Your task to perform on an android device: toggle javascript in the chrome app Image 0: 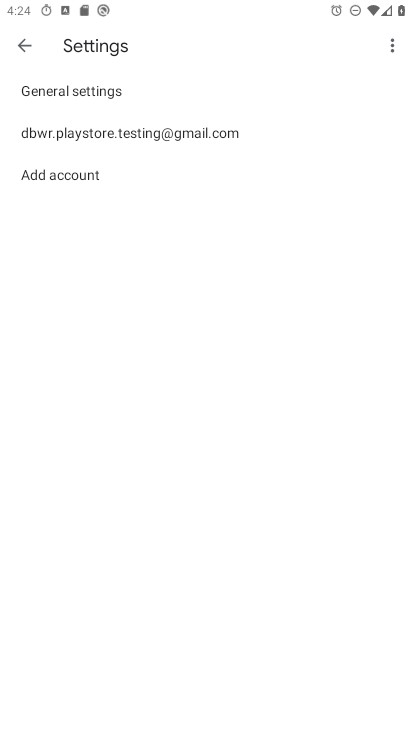
Step 0: press home button
Your task to perform on an android device: toggle javascript in the chrome app Image 1: 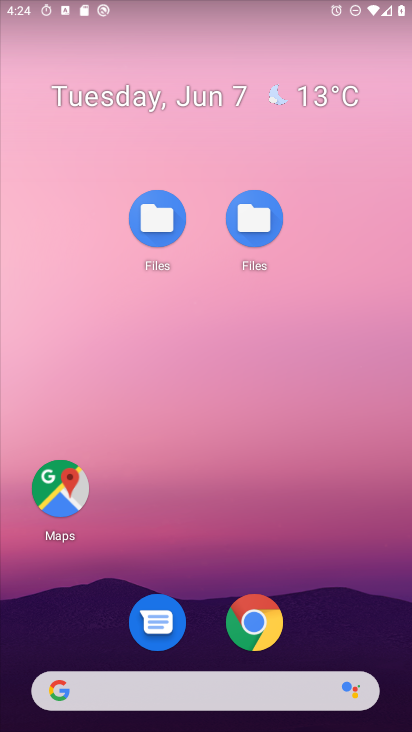
Step 1: click (251, 628)
Your task to perform on an android device: toggle javascript in the chrome app Image 2: 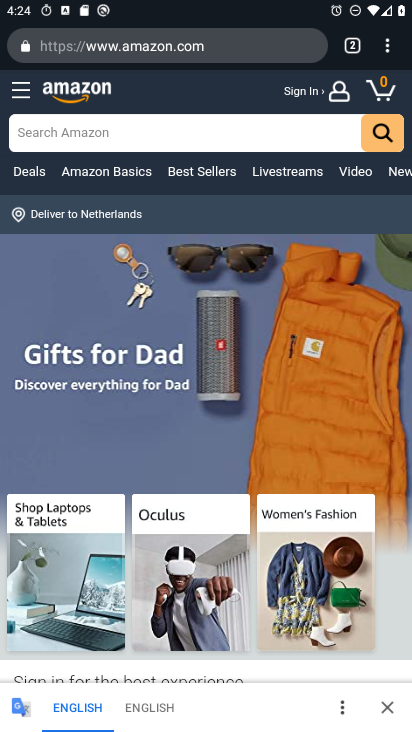
Step 2: click (390, 62)
Your task to perform on an android device: toggle javascript in the chrome app Image 3: 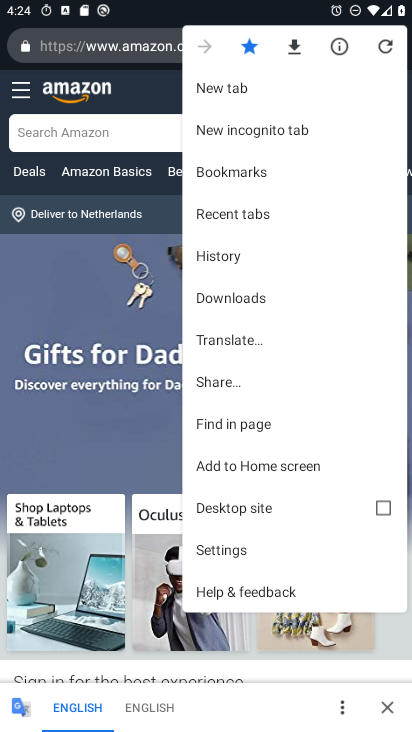
Step 3: click (220, 552)
Your task to perform on an android device: toggle javascript in the chrome app Image 4: 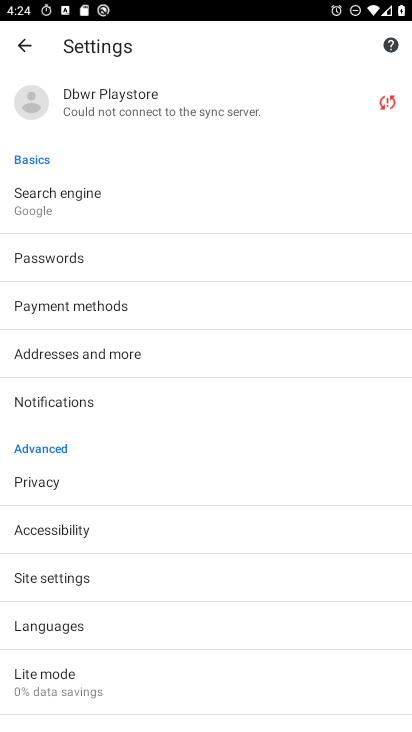
Step 4: click (106, 574)
Your task to perform on an android device: toggle javascript in the chrome app Image 5: 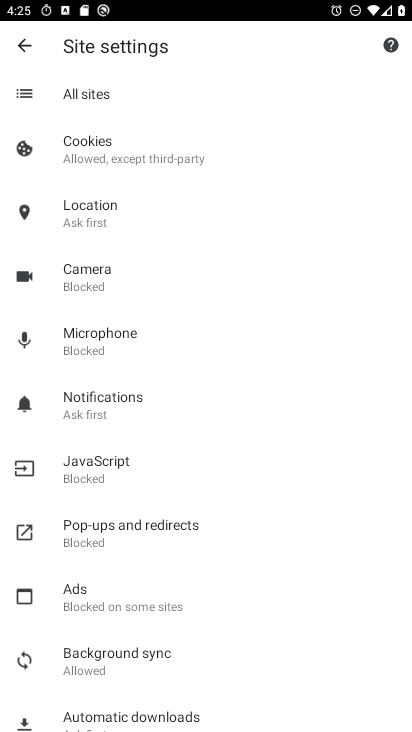
Step 5: click (86, 475)
Your task to perform on an android device: toggle javascript in the chrome app Image 6: 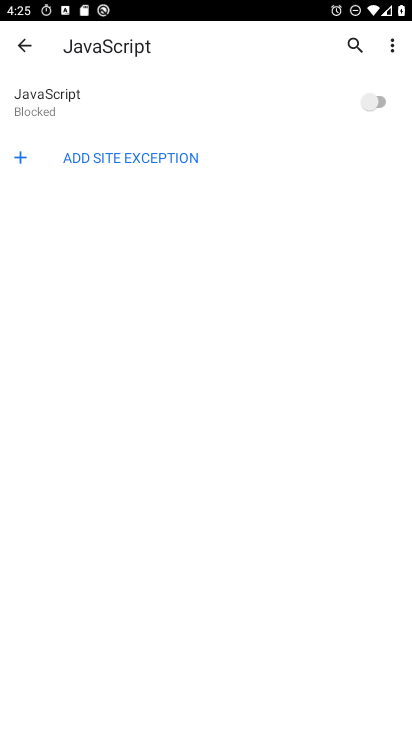
Step 6: click (372, 92)
Your task to perform on an android device: toggle javascript in the chrome app Image 7: 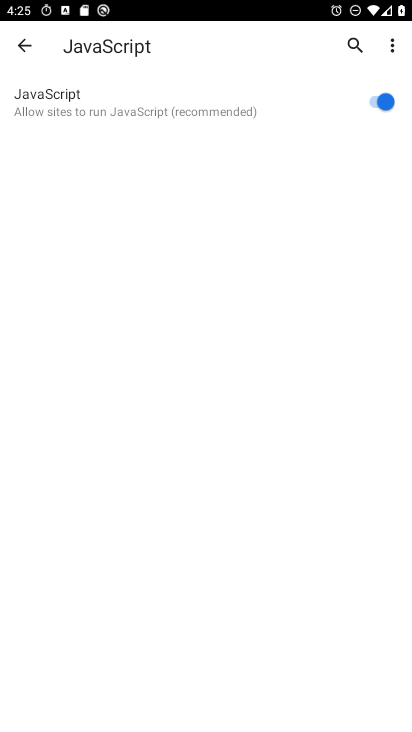
Step 7: task complete